Your task to perform on an android device: Open internet settings Image 0: 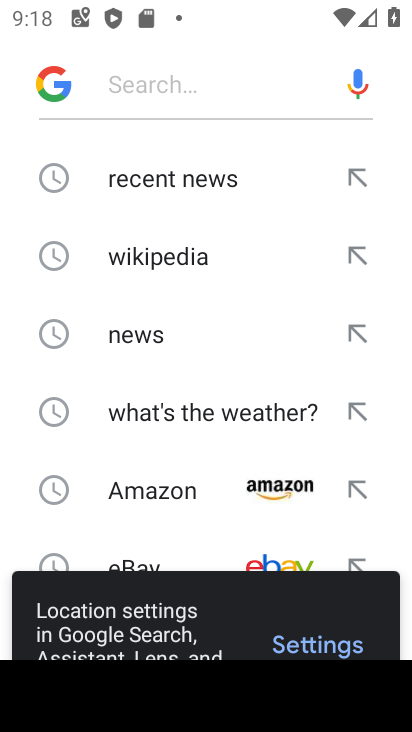
Step 0: press home button
Your task to perform on an android device: Open internet settings Image 1: 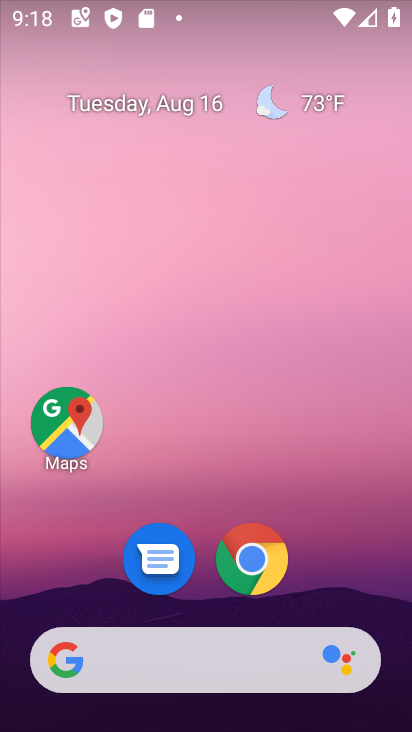
Step 1: drag from (332, 582) to (324, 69)
Your task to perform on an android device: Open internet settings Image 2: 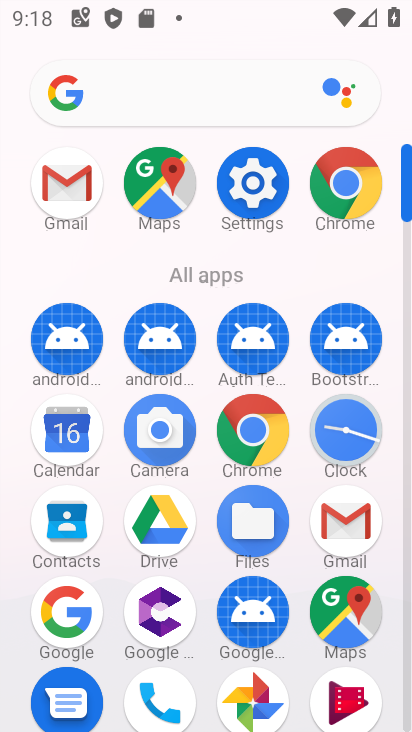
Step 2: click (257, 189)
Your task to perform on an android device: Open internet settings Image 3: 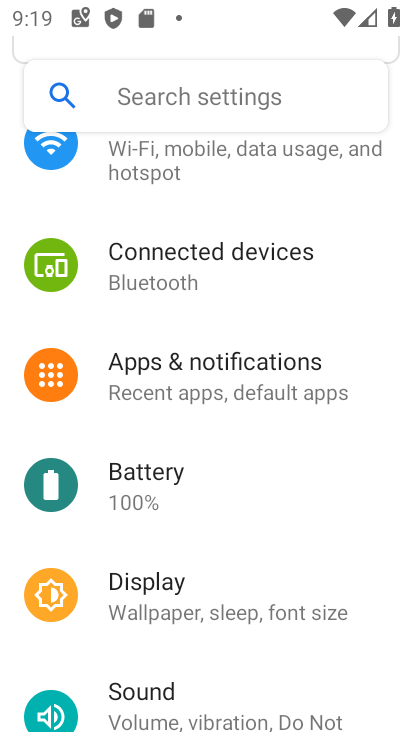
Step 3: drag from (221, 127) to (215, 591)
Your task to perform on an android device: Open internet settings Image 4: 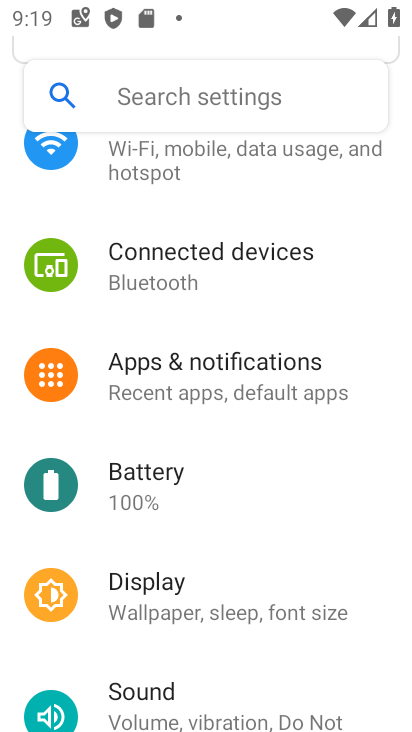
Step 4: drag from (256, 207) to (181, 727)
Your task to perform on an android device: Open internet settings Image 5: 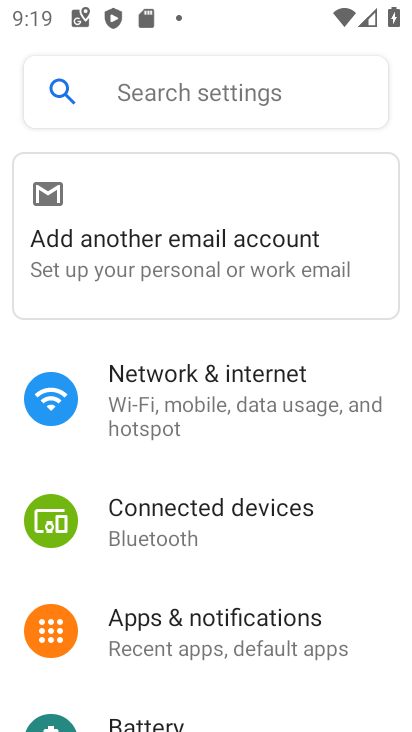
Step 5: click (293, 378)
Your task to perform on an android device: Open internet settings Image 6: 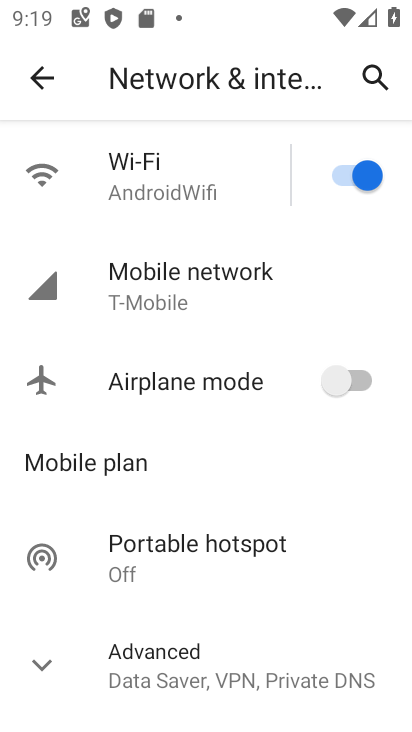
Step 6: task complete